Your task to perform on an android device: show emergency info Image 0: 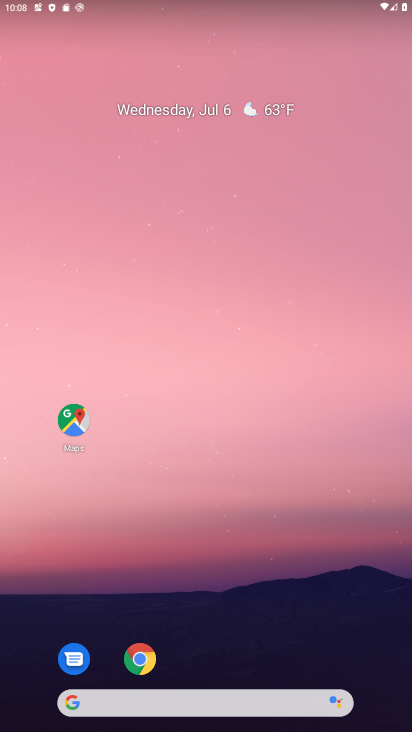
Step 0: drag from (106, 533) to (159, 110)
Your task to perform on an android device: show emergency info Image 1: 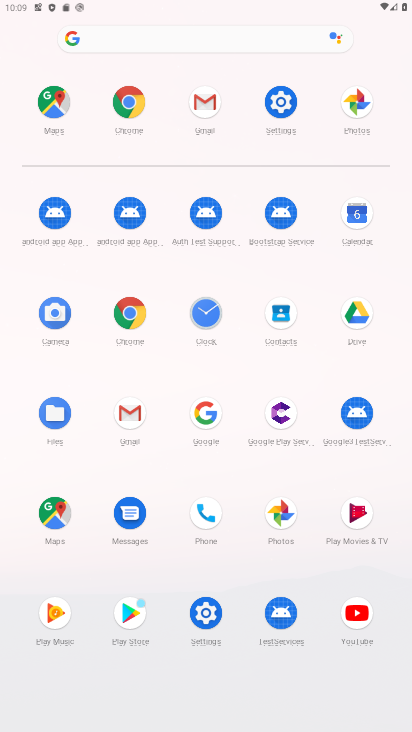
Step 1: click (206, 612)
Your task to perform on an android device: show emergency info Image 2: 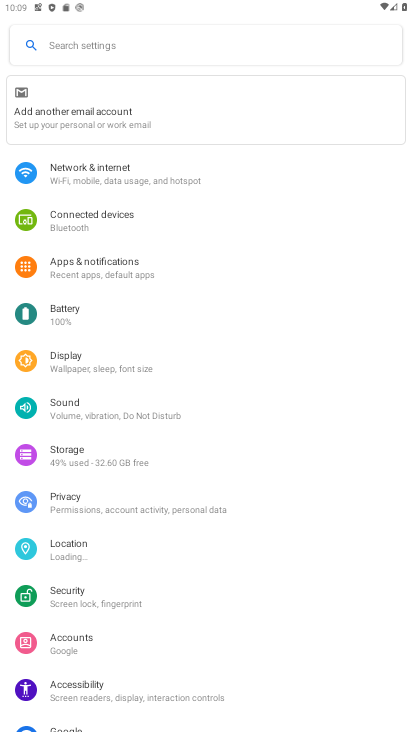
Step 2: drag from (170, 627) to (294, 2)
Your task to perform on an android device: show emergency info Image 3: 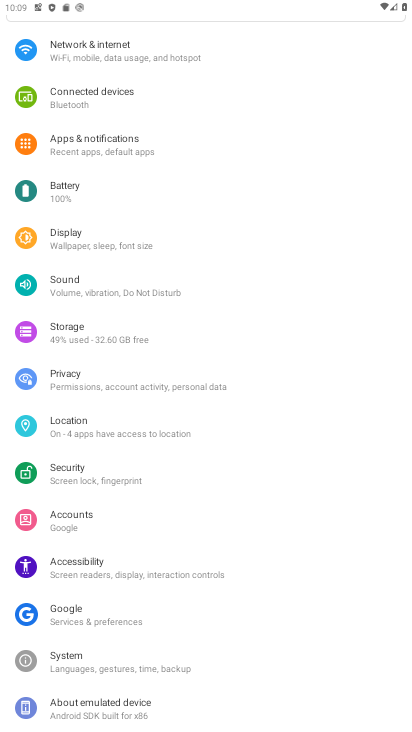
Step 3: drag from (153, 630) to (231, 393)
Your task to perform on an android device: show emergency info Image 4: 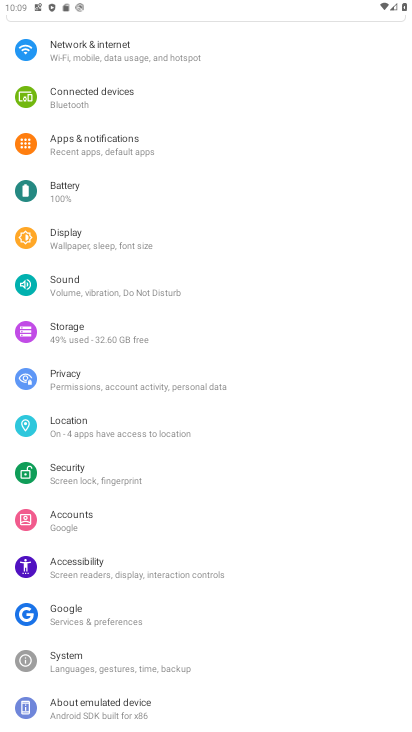
Step 4: click (124, 700)
Your task to perform on an android device: show emergency info Image 5: 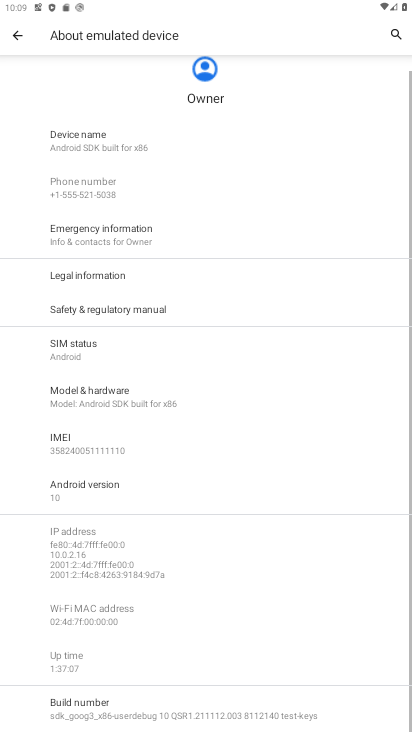
Step 5: click (141, 230)
Your task to perform on an android device: show emergency info Image 6: 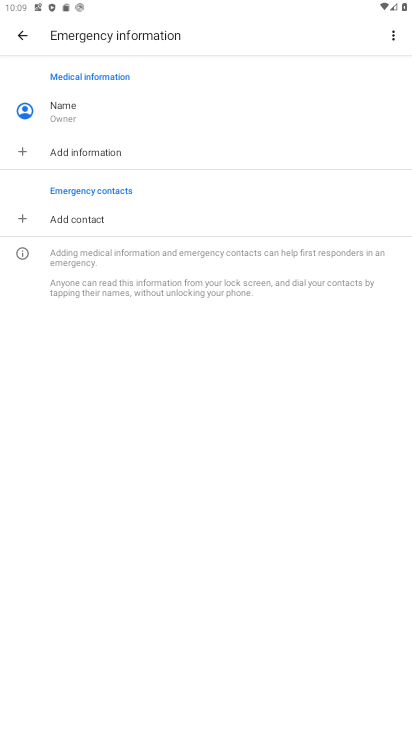
Step 6: task complete